Your task to perform on an android device: open a new tab in the chrome app Image 0: 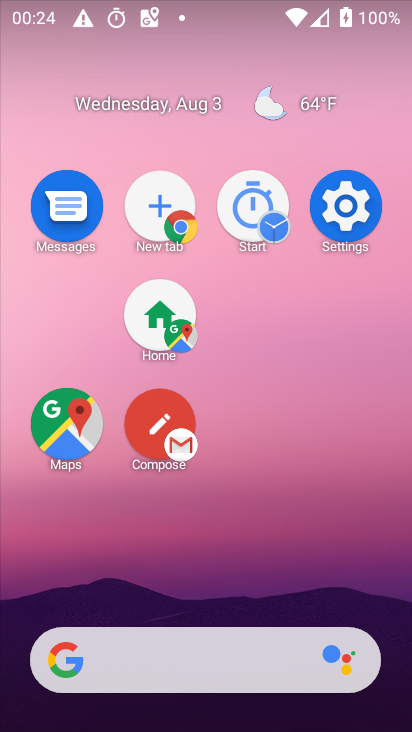
Step 0: drag from (257, 374) to (260, 160)
Your task to perform on an android device: open a new tab in the chrome app Image 1: 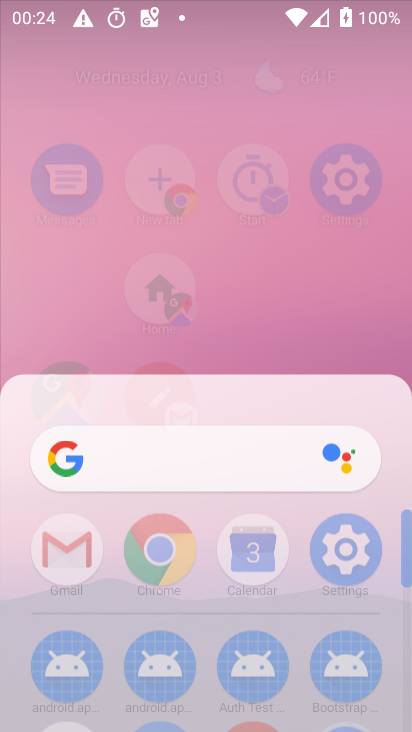
Step 1: drag from (247, 453) to (215, 169)
Your task to perform on an android device: open a new tab in the chrome app Image 2: 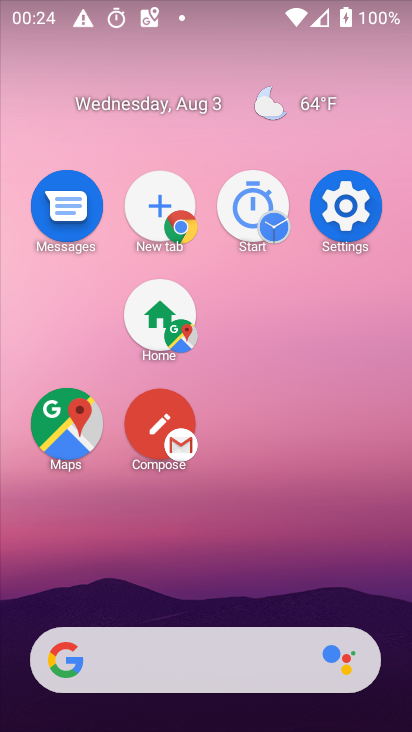
Step 2: drag from (245, 411) to (223, 143)
Your task to perform on an android device: open a new tab in the chrome app Image 3: 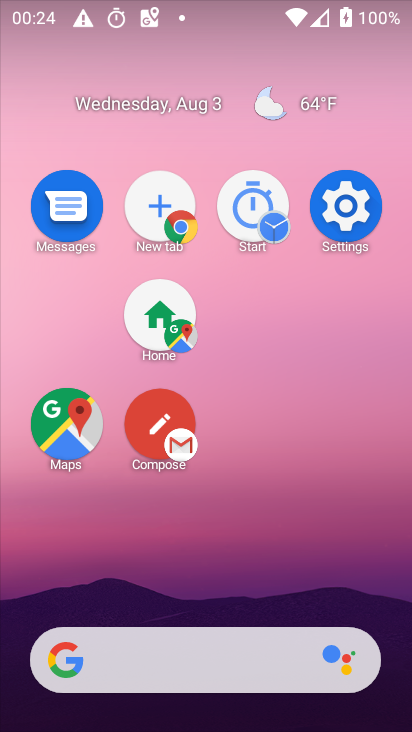
Step 3: drag from (226, 474) to (248, 90)
Your task to perform on an android device: open a new tab in the chrome app Image 4: 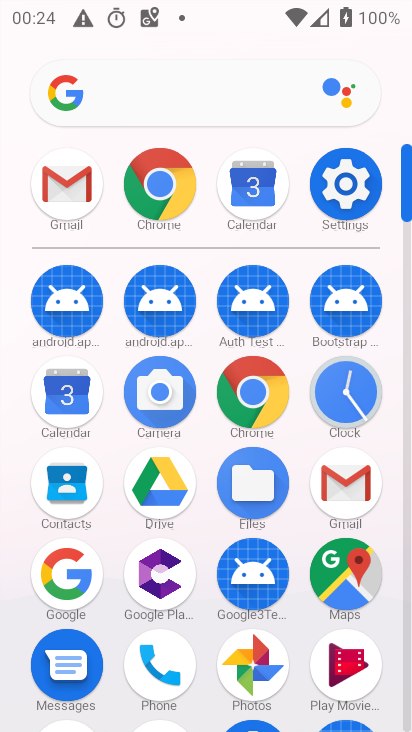
Step 4: click (152, 184)
Your task to perform on an android device: open a new tab in the chrome app Image 5: 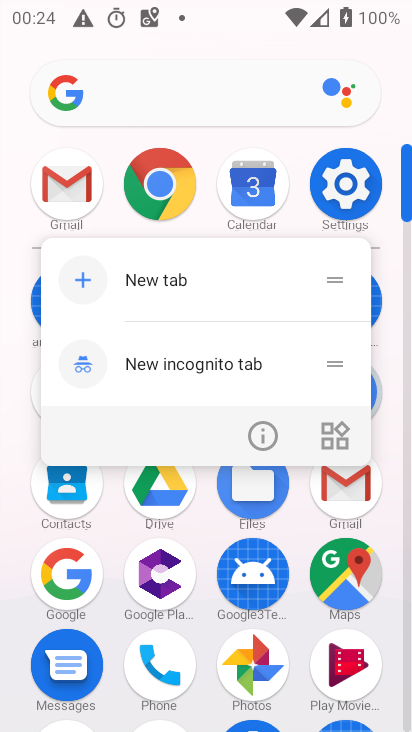
Step 5: click (158, 269)
Your task to perform on an android device: open a new tab in the chrome app Image 6: 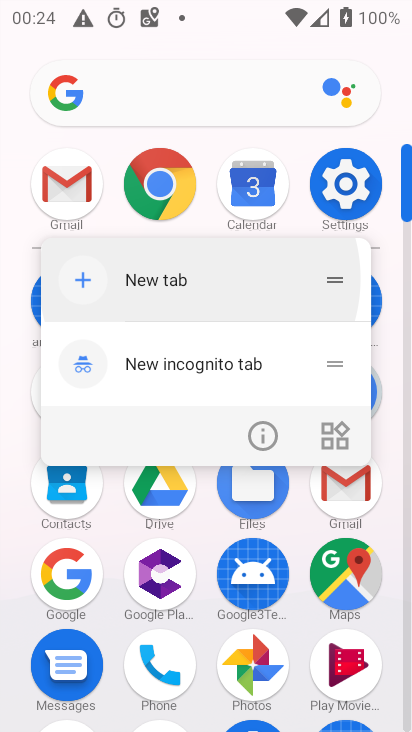
Step 6: click (160, 271)
Your task to perform on an android device: open a new tab in the chrome app Image 7: 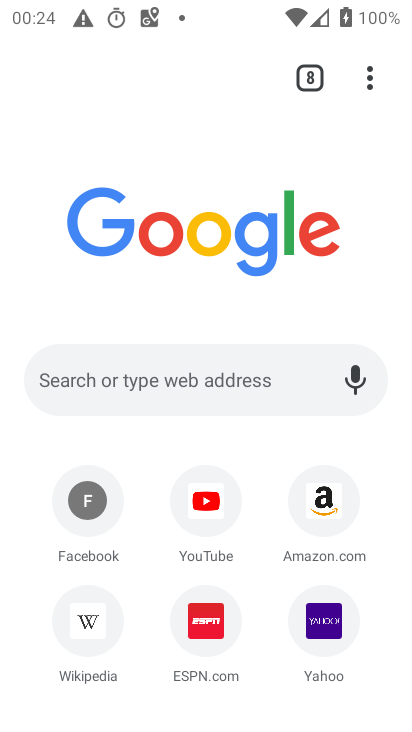
Step 7: click (165, 279)
Your task to perform on an android device: open a new tab in the chrome app Image 8: 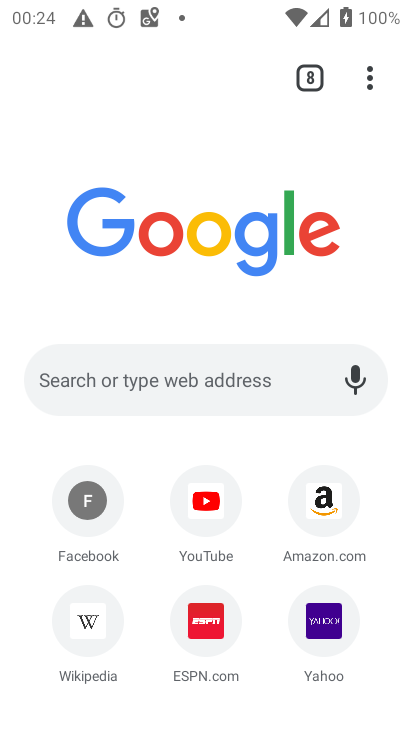
Step 8: task complete